Your task to perform on an android device: Do I have any events tomorrow? Image 0: 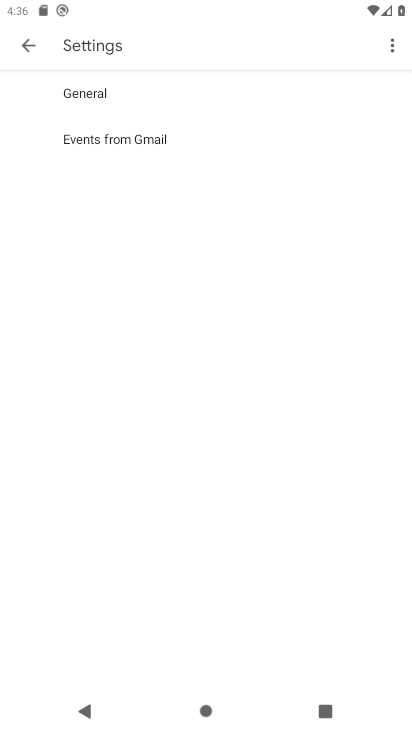
Step 0: press back button
Your task to perform on an android device: Do I have any events tomorrow? Image 1: 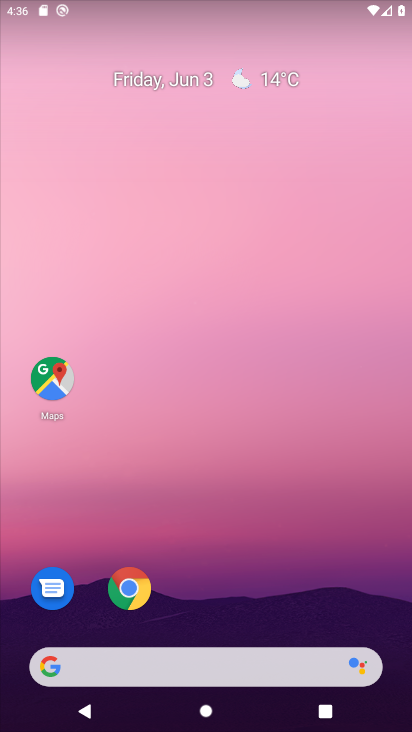
Step 1: drag from (275, 594) to (187, 16)
Your task to perform on an android device: Do I have any events tomorrow? Image 2: 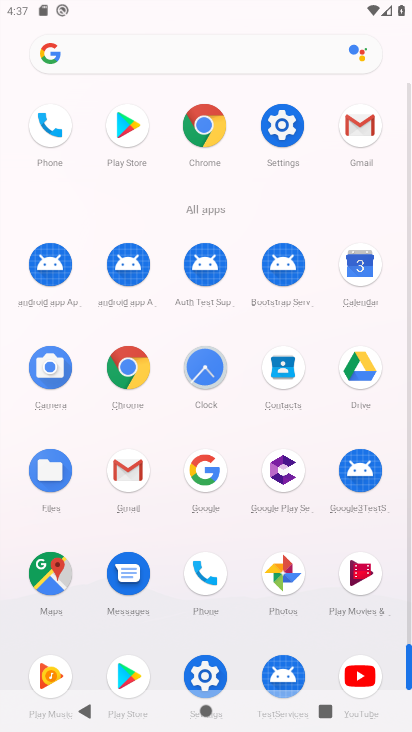
Step 2: click (359, 257)
Your task to perform on an android device: Do I have any events tomorrow? Image 3: 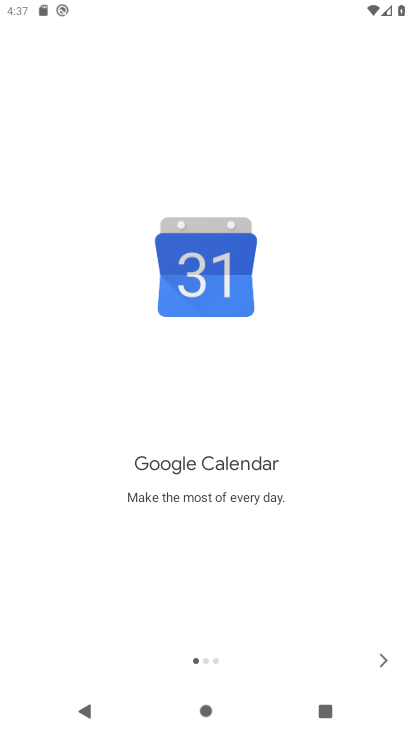
Step 3: click (378, 653)
Your task to perform on an android device: Do I have any events tomorrow? Image 4: 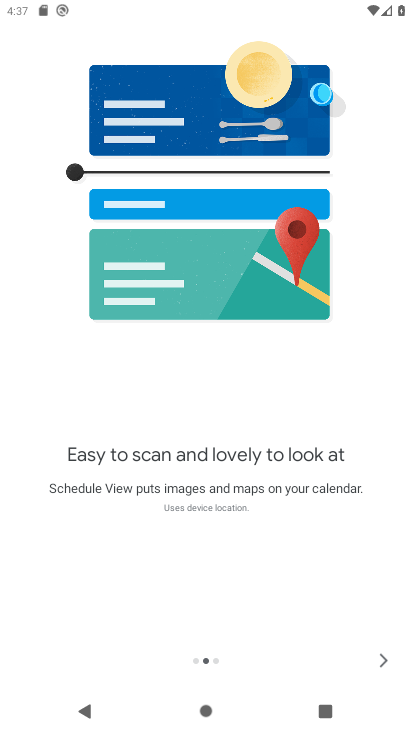
Step 4: click (382, 656)
Your task to perform on an android device: Do I have any events tomorrow? Image 5: 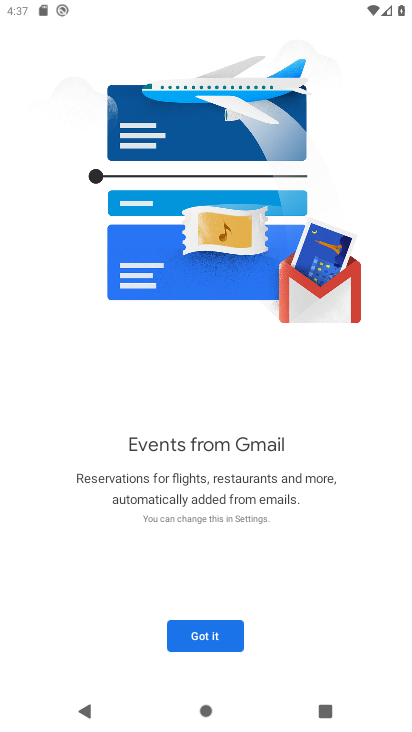
Step 5: click (233, 638)
Your task to perform on an android device: Do I have any events tomorrow? Image 6: 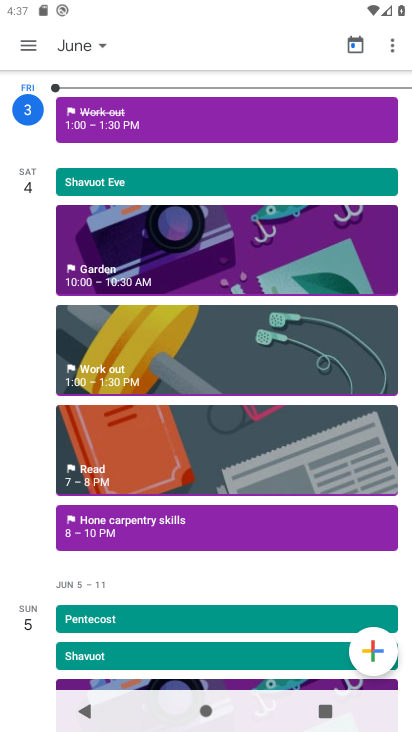
Step 6: click (28, 185)
Your task to perform on an android device: Do I have any events tomorrow? Image 7: 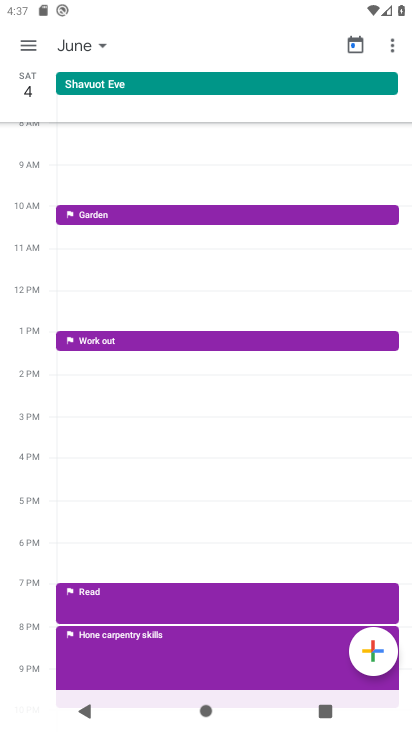
Step 7: task complete